Your task to perform on an android device: change your default location settings in chrome Image 0: 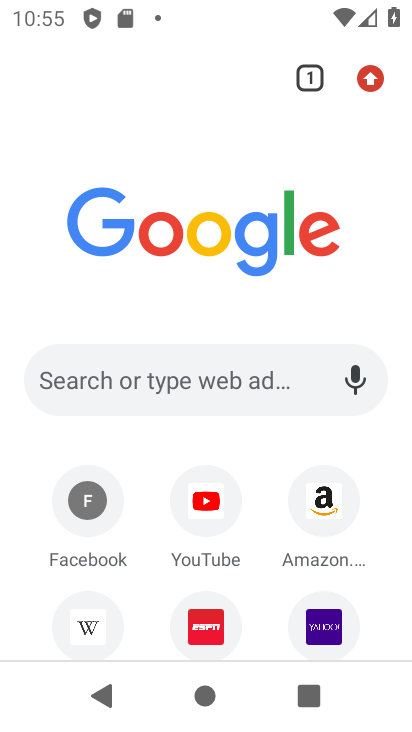
Step 0: click (375, 62)
Your task to perform on an android device: change your default location settings in chrome Image 1: 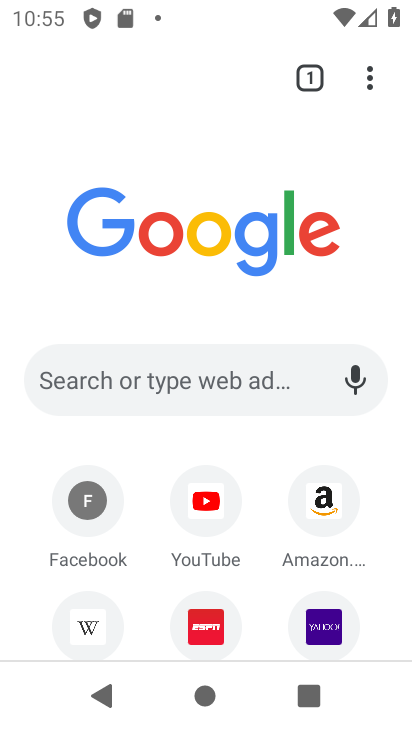
Step 1: click (369, 72)
Your task to perform on an android device: change your default location settings in chrome Image 2: 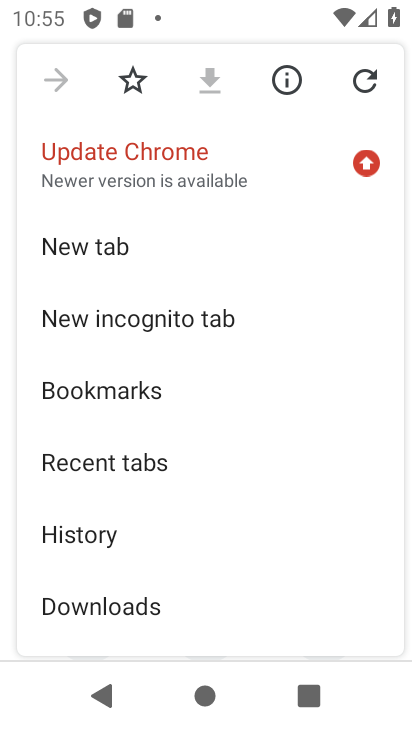
Step 2: drag from (334, 560) to (238, 237)
Your task to perform on an android device: change your default location settings in chrome Image 3: 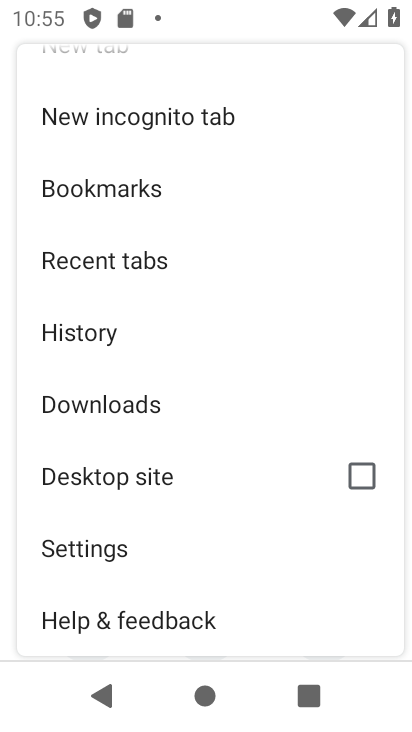
Step 3: click (142, 548)
Your task to perform on an android device: change your default location settings in chrome Image 4: 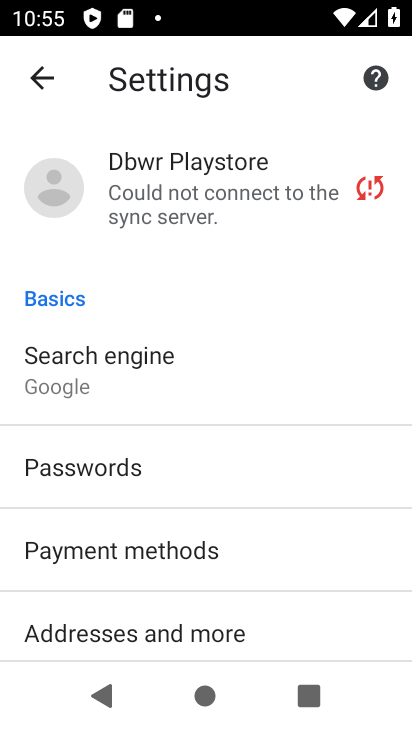
Step 4: drag from (230, 625) to (215, 425)
Your task to perform on an android device: change your default location settings in chrome Image 5: 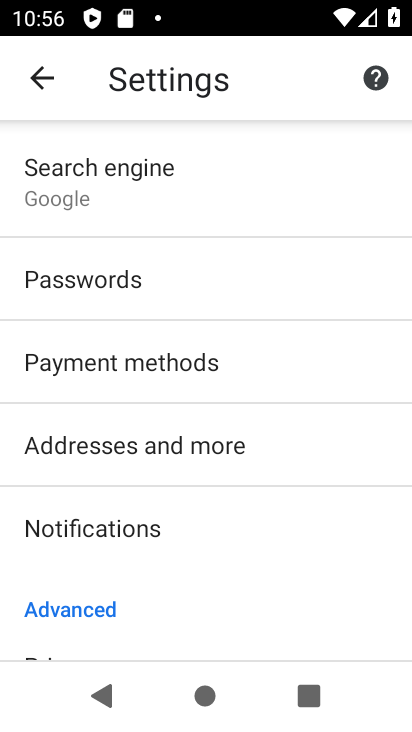
Step 5: drag from (207, 545) to (187, 210)
Your task to perform on an android device: change your default location settings in chrome Image 6: 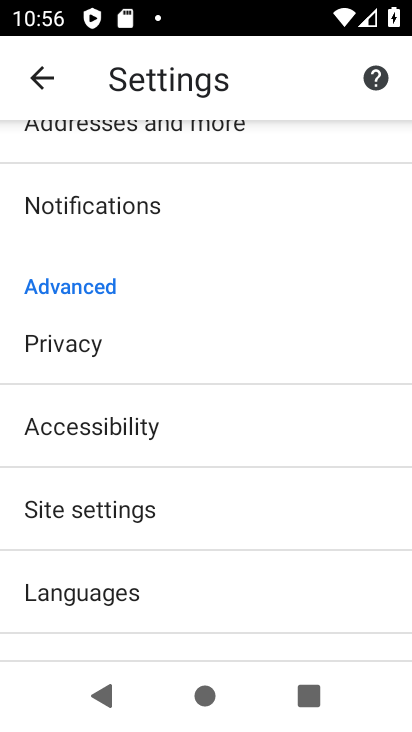
Step 6: click (96, 499)
Your task to perform on an android device: change your default location settings in chrome Image 7: 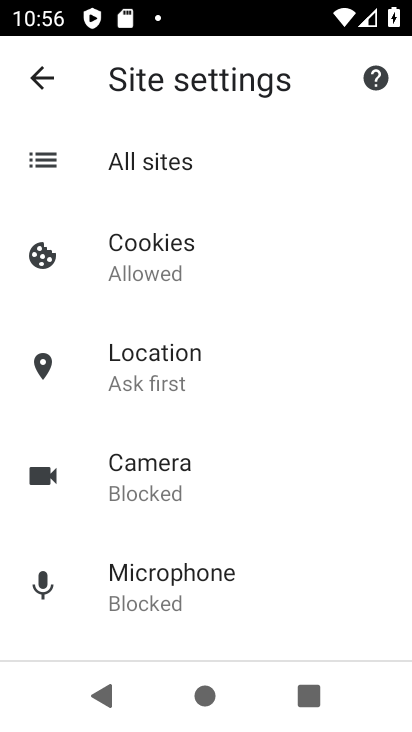
Step 7: click (175, 344)
Your task to perform on an android device: change your default location settings in chrome Image 8: 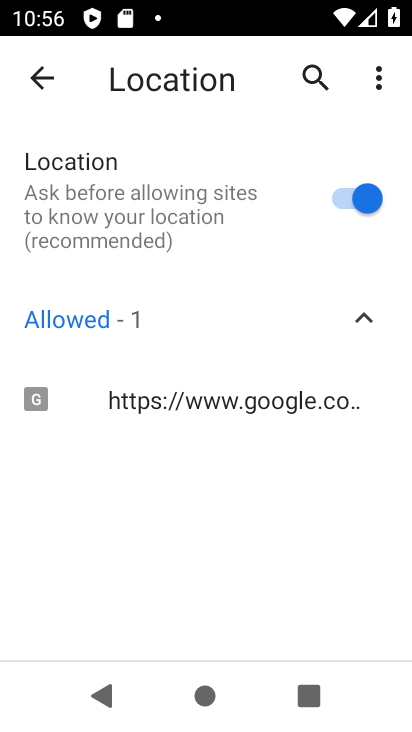
Step 8: click (356, 200)
Your task to perform on an android device: change your default location settings in chrome Image 9: 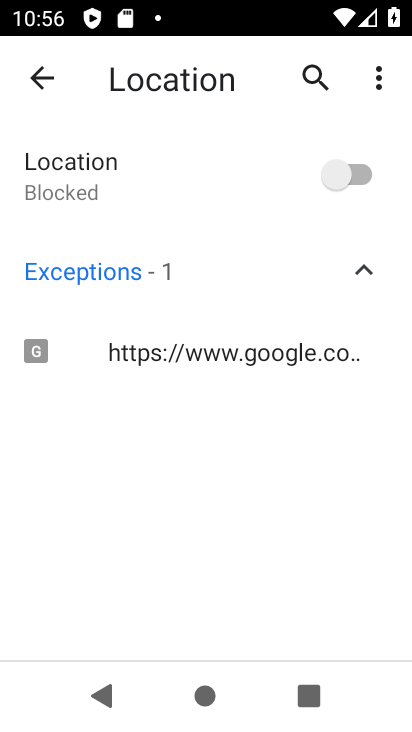
Step 9: task complete